Your task to perform on an android device: set an alarm Image 0: 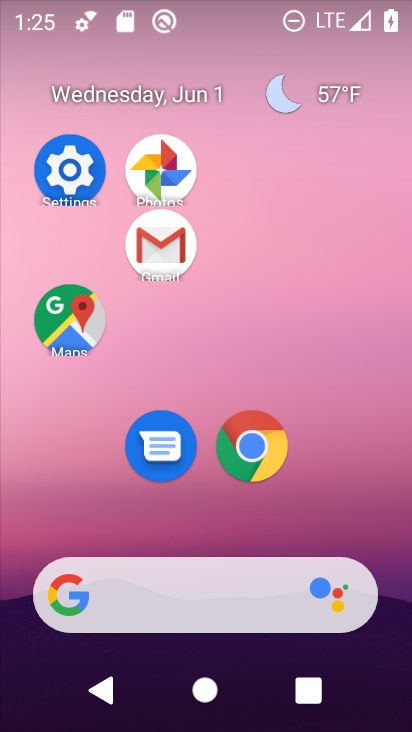
Step 0: drag from (325, 305) to (315, 40)
Your task to perform on an android device: set an alarm Image 1: 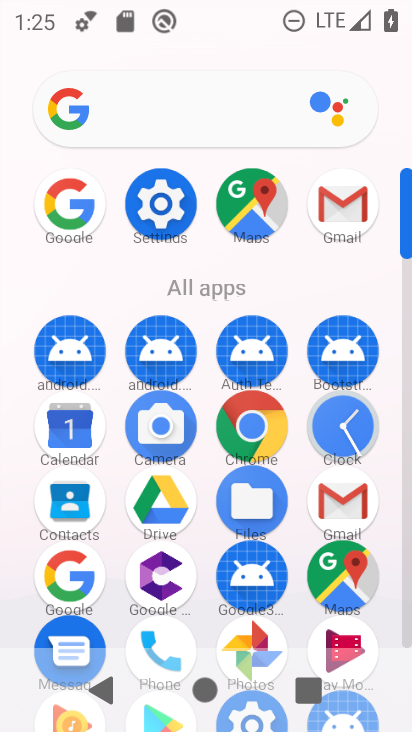
Step 1: drag from (344, 424) to (169, 210)
Your task to perform on an android device: set an alarm Image 2: 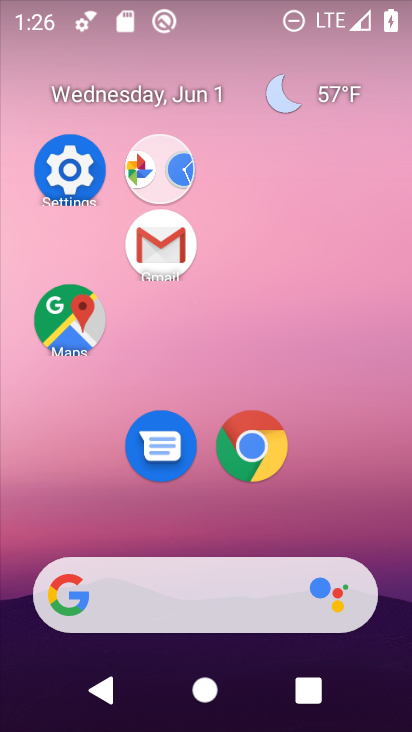
Step 2: click (177, 181)
Your task to perform on an android device: set an alarm Image 3: 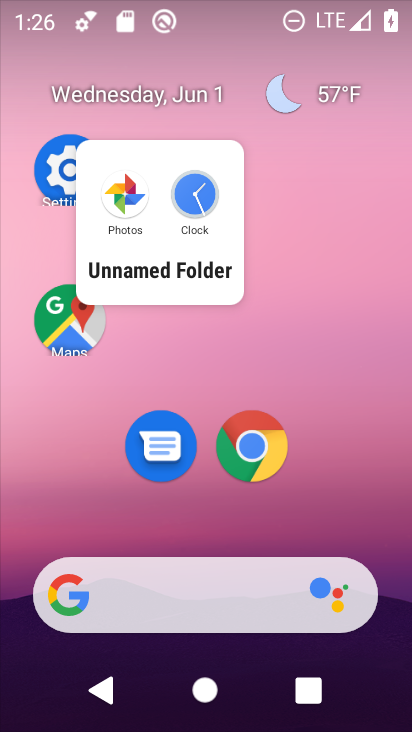
Step 3: drag from (204, 191) to (243, 197)
Your task to perform on an android device: set an alarm Image 4: 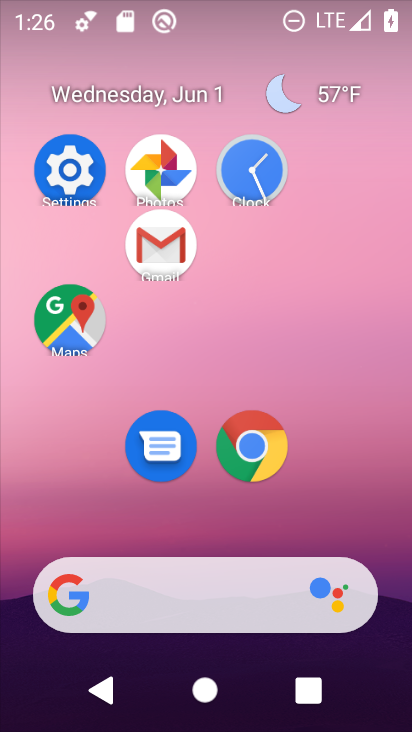
Step 4: click (261, 187)
Your task to perform on an android device: set an alarm Image 5: 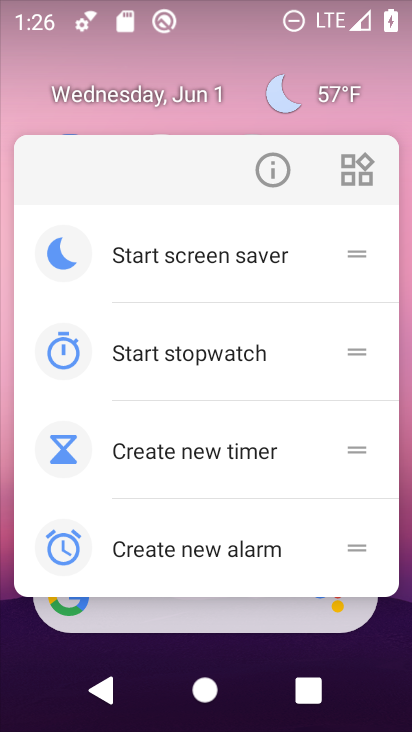
Step 5: click (375, 102)
Your task to perform on an android device: set an alarm Image 6: 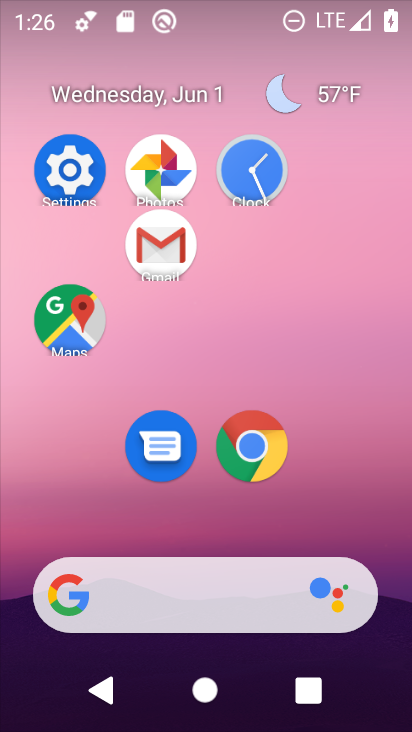
Step 6: click (248, 171)
Your task to perform on an android device: set an alarm Image 7: 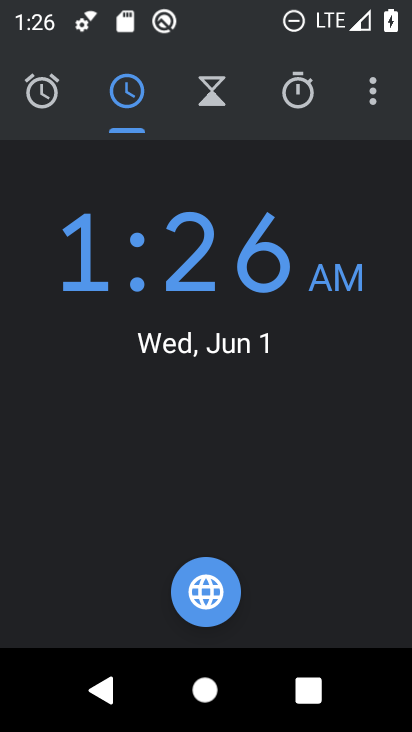
Step 7: click (71, 79)
Your task to perform on an android device: set an alarm Image 8: 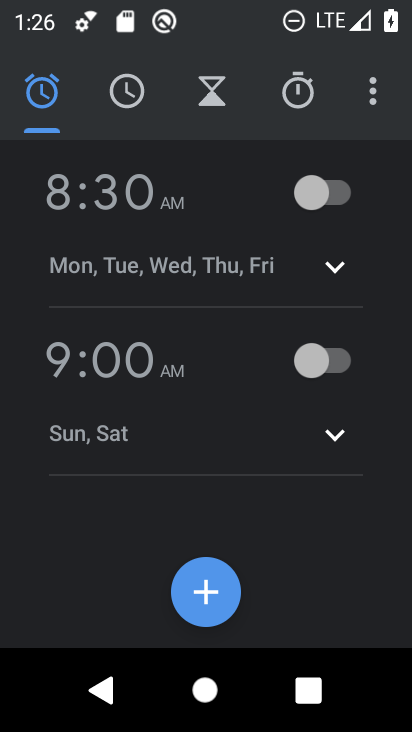
Step 8: click (354, 198)
Your task to perform on an android device: set an alarm Image 9: 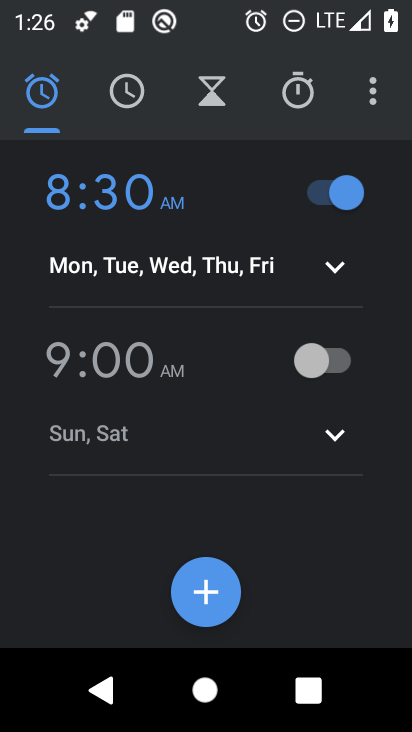
Step 9: task complete